Your task to perform on an android device: Go to settings Image 0: 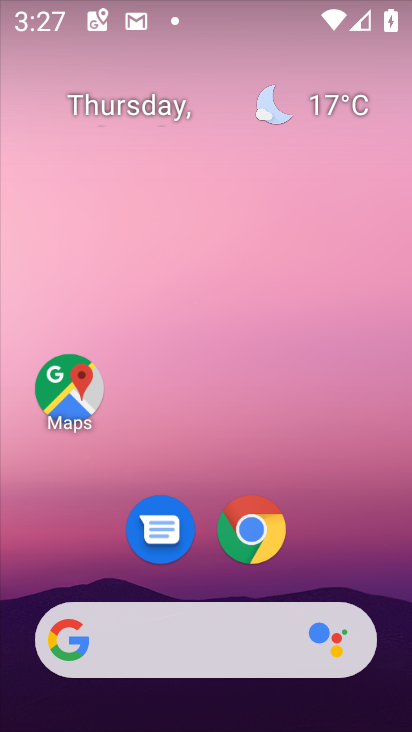
Step 0: drag from (207, 611) to (182, 147)
Your task to perform on an android device: Go to settings Image 1: 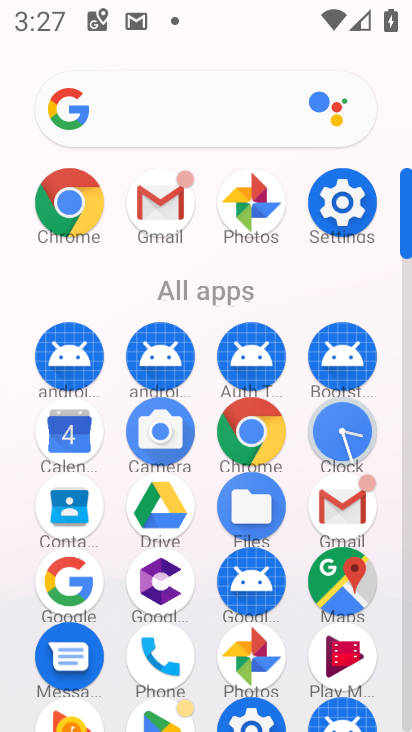
Step 1: click (336, 203)
Your task to perform on an android device: Go to settings Image 2: 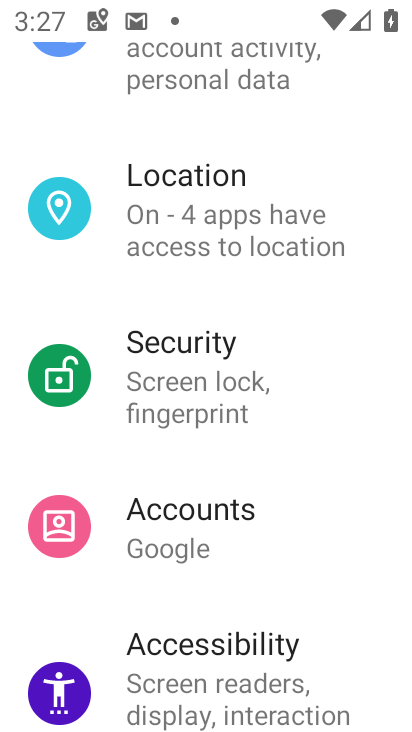
Step 2: task complete